Your task to perform on an android device: turn on priority inbox in the gmail app Image 0: 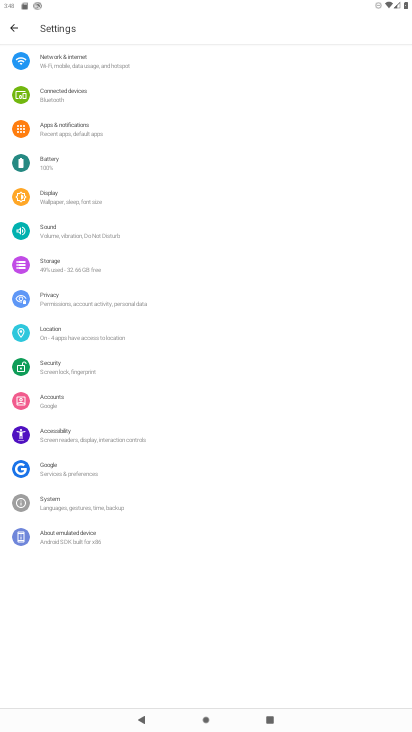
Step 0: press home button
Your task to perform on an android device: turn on priority inbox in the gmail app Image 1: 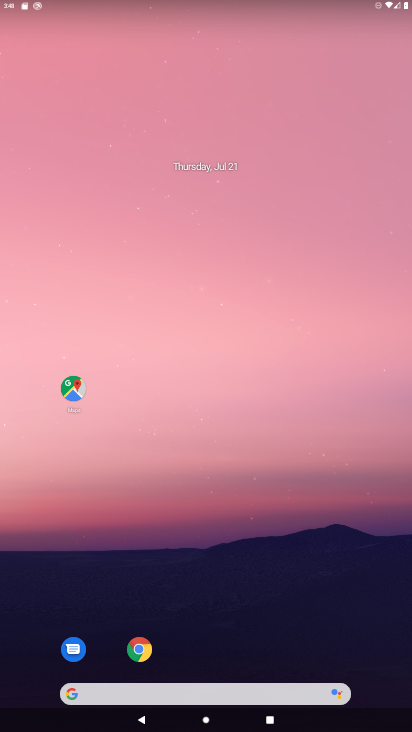
Step 1: drag from (205, 651) to (123, 122)
Your task to perform on an android device: turn on priority inbox in the gmail app Image 2: 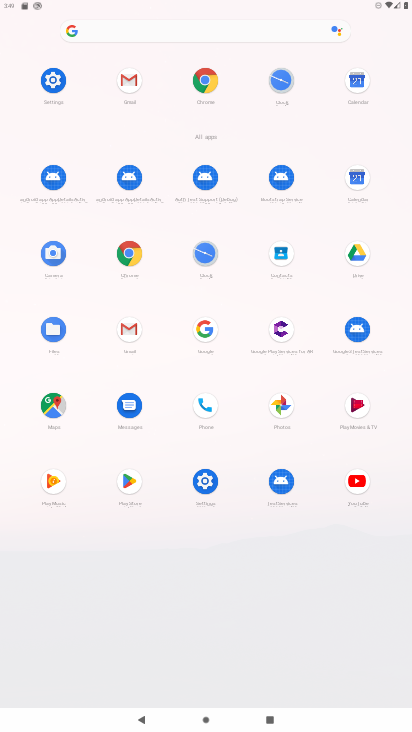
Step 2: click (129, 341)
Your task to perform on an android device: turn on priority inbox in the gmail app Image 3: 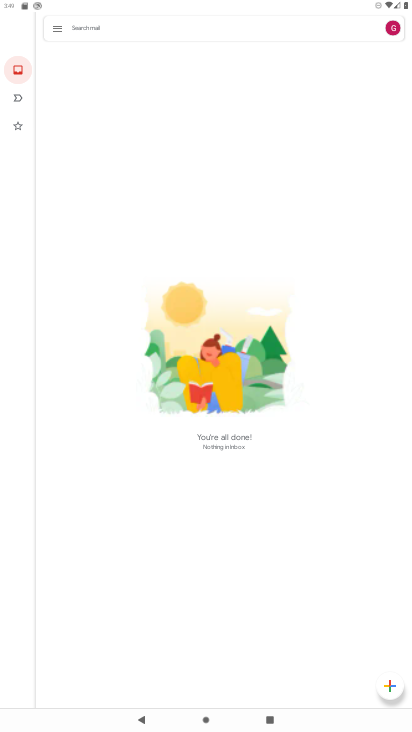
Step 3: click (57, 27)
Your task to perform on an android device: turn on priority inbox in the gmail app Image 4: 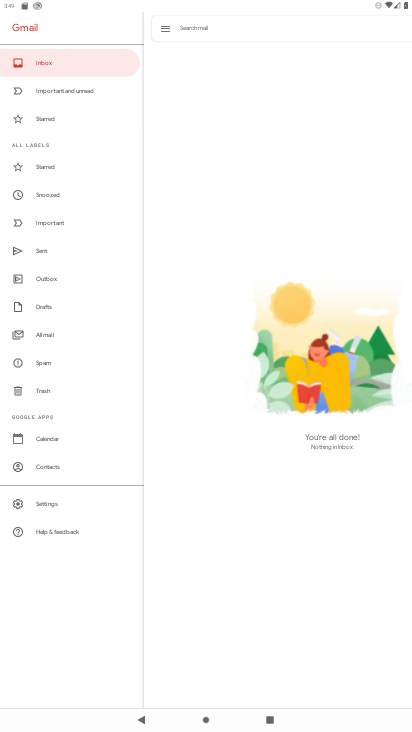
Step 4: click (42, 502)
Your task to perform on an android device: turn on priority inbox in the gmail app Image 5: 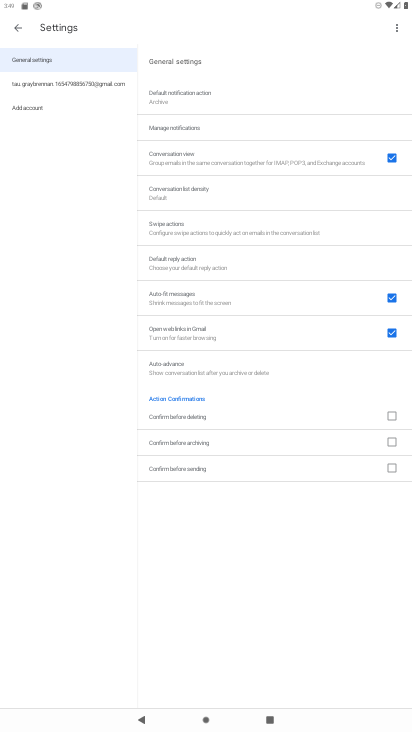
Step 5: click (100, 86)
Your task to perform on an android device: turn on priority inbox in the gmail app Image 6: 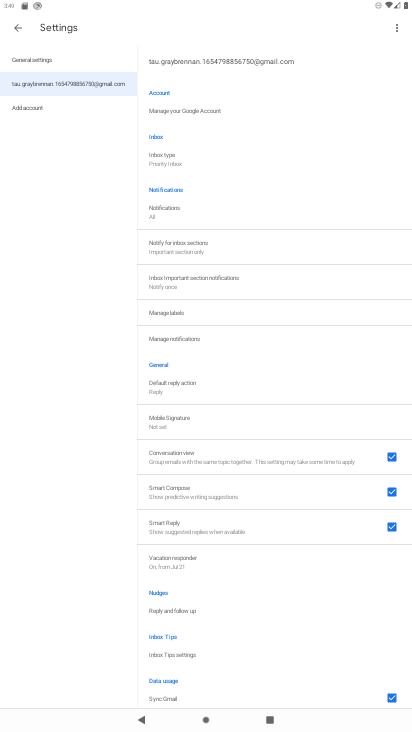
Step 6: click (172, 164)
Your task to perform on an android device: turn on priority inbox in the gmail app Image 7: 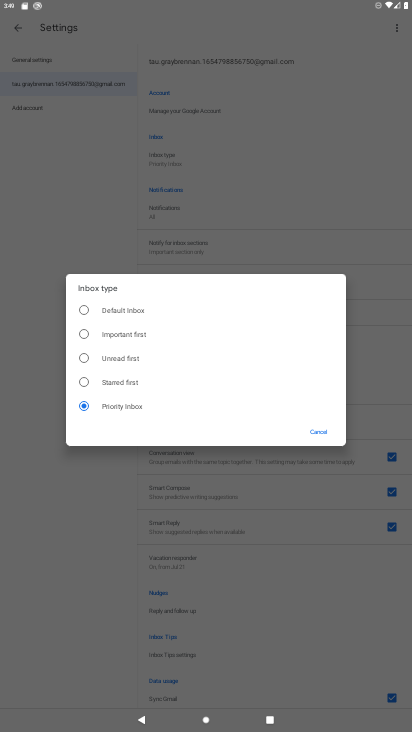
Step 7: task complete